Your task to perform on an android device: Search for vegetarian restaurants on Maps Image 0: 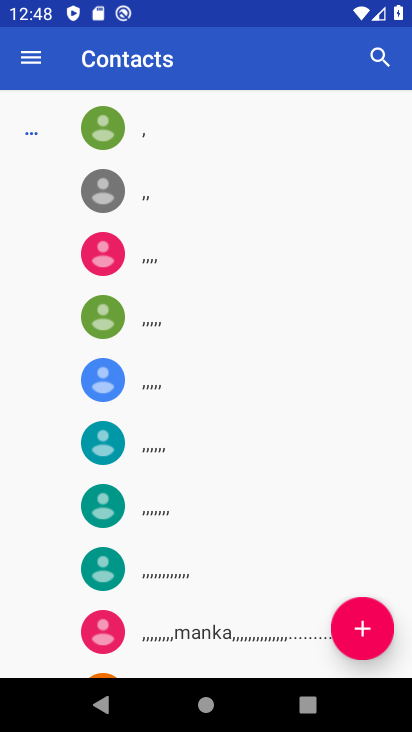
Step 0: press home button
Your task to perform on an android device: Search for vegetarian restaurants on Maps Image 1: 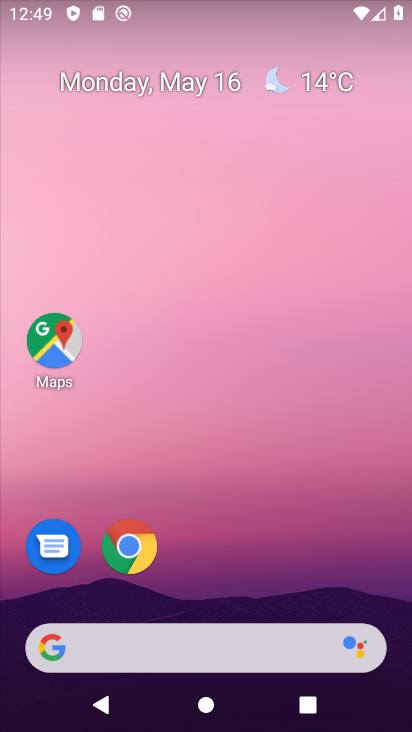
Step 1: drag from (261, 660) to (213, 323)
Your task to perform on an android device: Search for vegetarian restaurants on Maps Image 2: 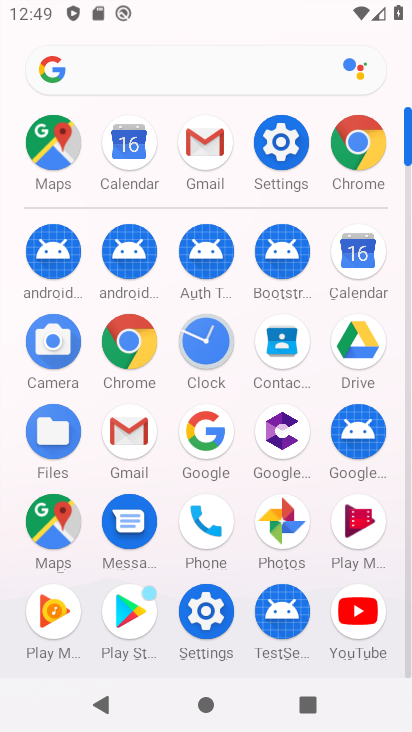
Step 2: click (31, 155)
Your task to perform on an android device: Search for vegetarian restaurants on Maps Image 3: 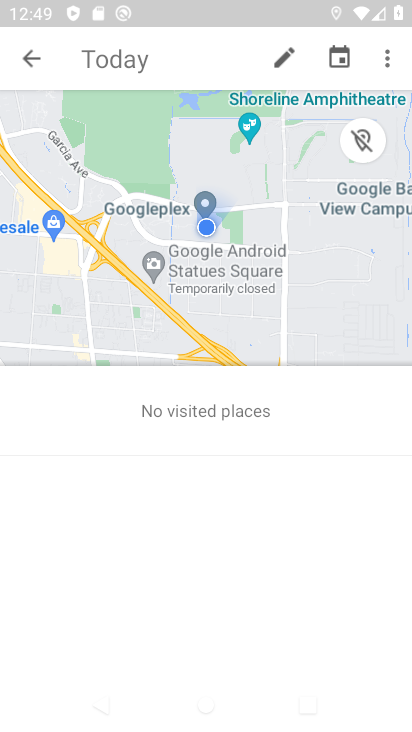
Step 3: click (22, 63)
Your task to perform on an android device: Search for vegetarian restaurants on Maps Image 4: 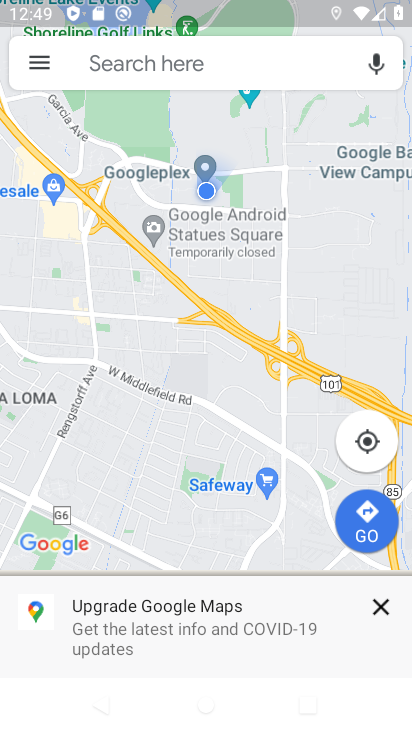
Step 4: click (165, 50)
Your task to perform on an android device: Search for vegetarian restaurants on Maps Image 5: 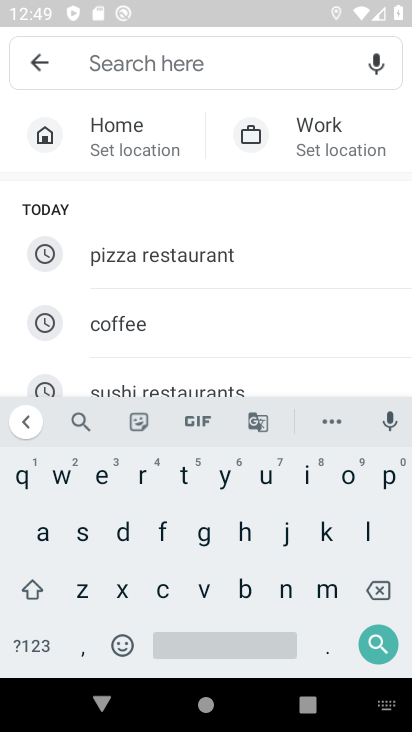
Step 5: click (202, 590)
Your task to perform on an android device: Search for vegetarian restaurants on Maps Image 6: 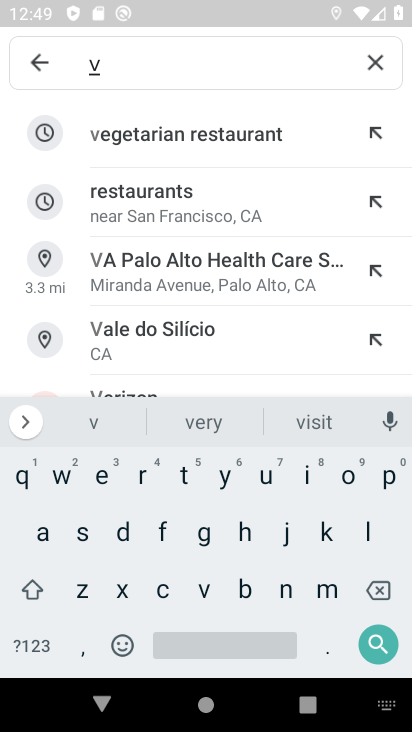
Step 6: click (225, 142)
Your task to perform on an android device: Search for vegetarian restaurants on Maps Image 7: 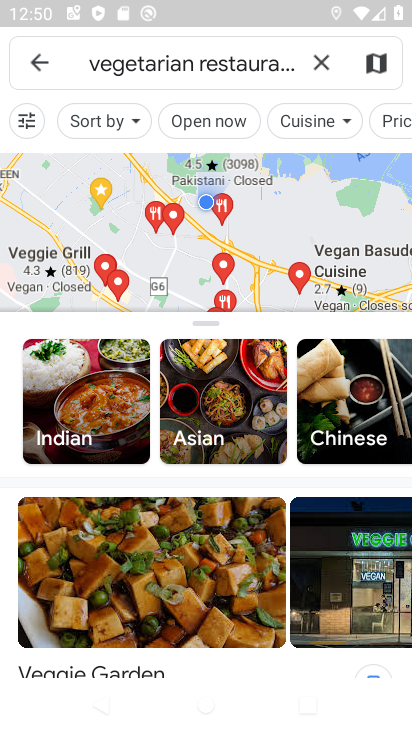
Step 7: task complete